Your task to perform on an android device: open sync settings in chrome Image 0: 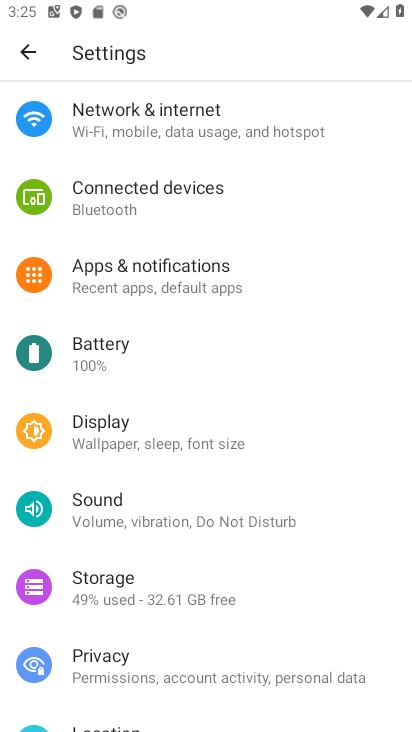
Step 0: press home button
Your task to perform on an android device: open sync settings in chrome Image 1: 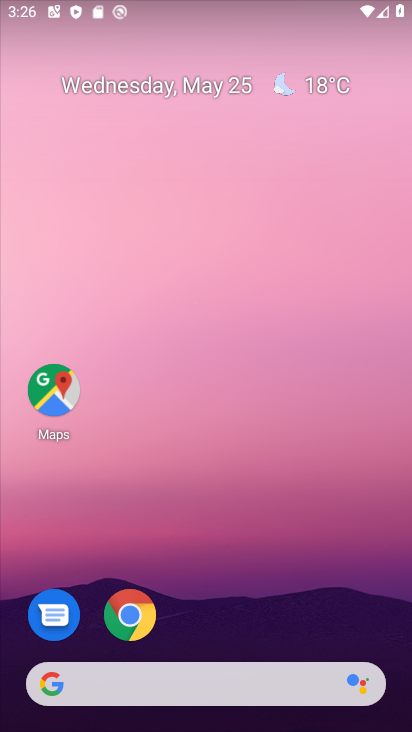
Step 1: click (143, 611)
Your task to perform on an android device: open sync settings in chrome Image 2: 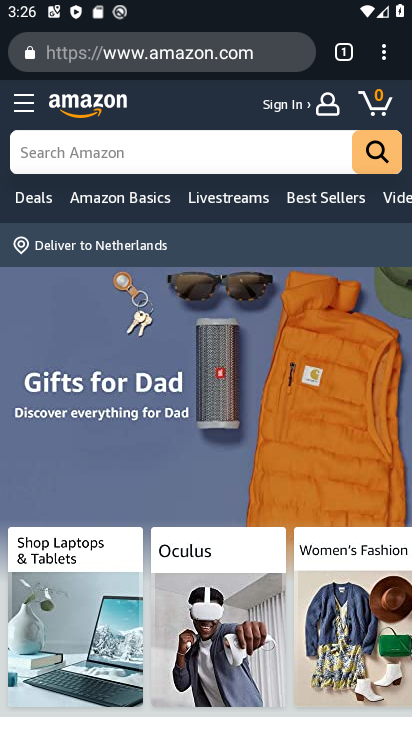
Step 2: click (387, 61)
Your task to perform on an android device: open sync settings in chrome Image 3: 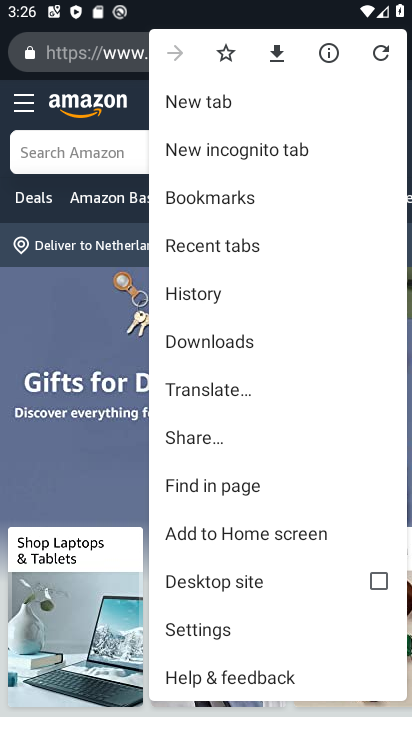
Step 3: click (239, 623)
Your task to perform on an android device: open sync settings in chrome Image 4: 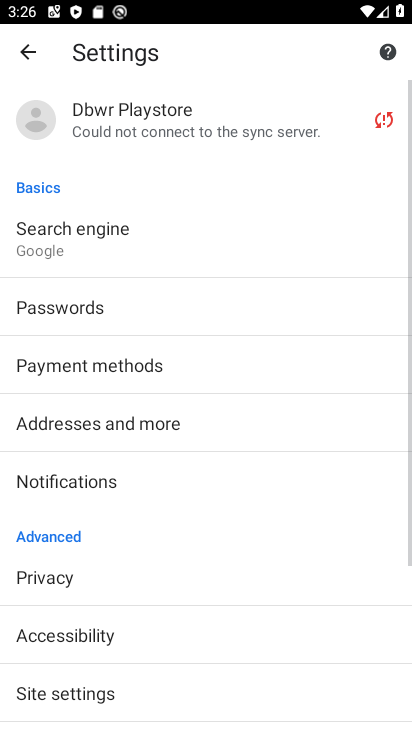
Step 4: click (168, 129)
Your task to perform on an android device: open sync settings in chrome Image 5: 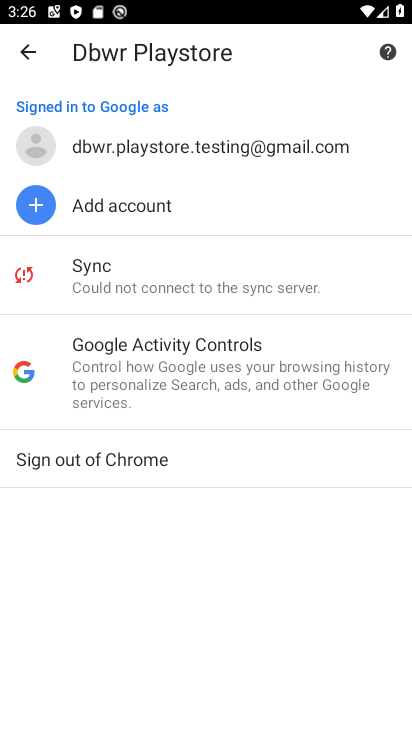
Step 5: click (193, 269)
Your task to perform on an android device: open sync settings in chrome Image 6: 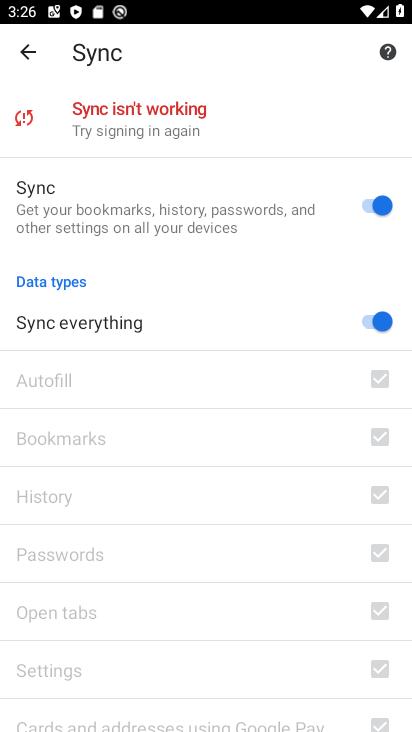
Step 6: task complete